Your task to perform on an android device: set the stopwatch Image 0: 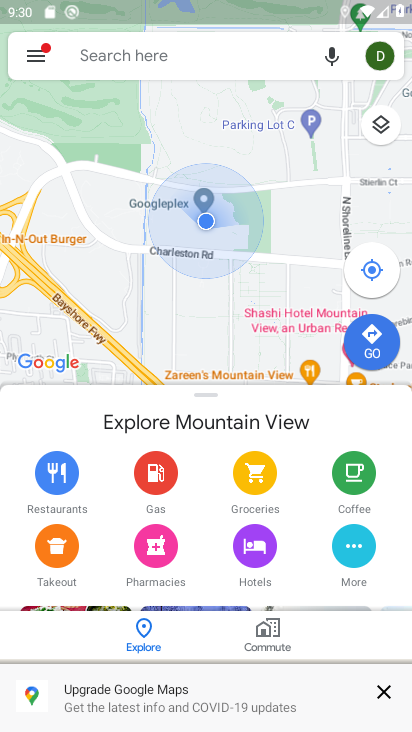
Step 0: press home button
Your task to perform on an android device: set the stopwatch Image 1: 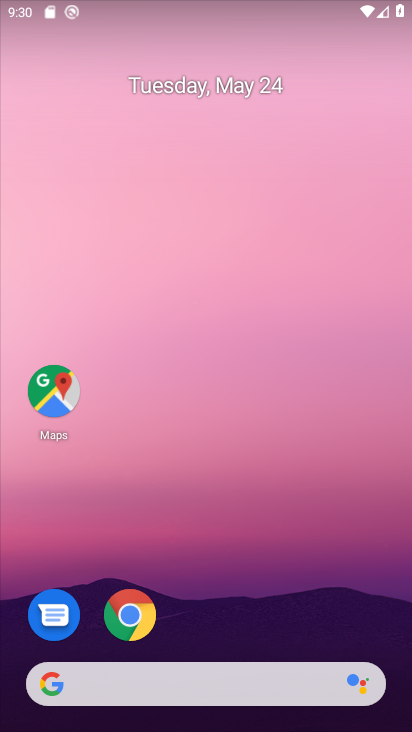
Step 1: drag from (370, 624) to (368, 260)
Your task to perform on an android device: set the stopwatch Image 2: 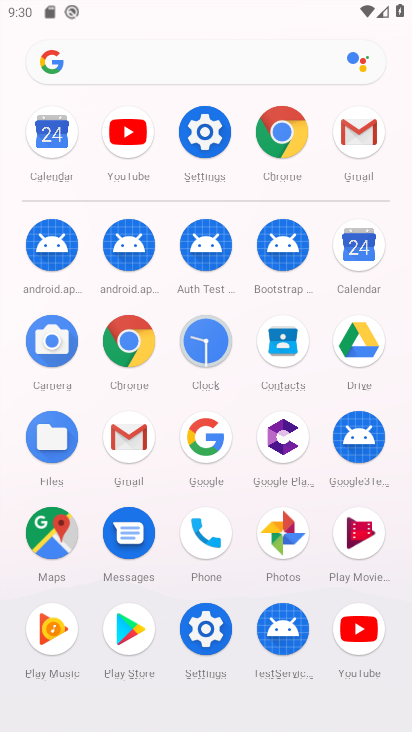
Step 2: click (200, 345)
Your task to perform on an android device: set the stopwatch Image 3: 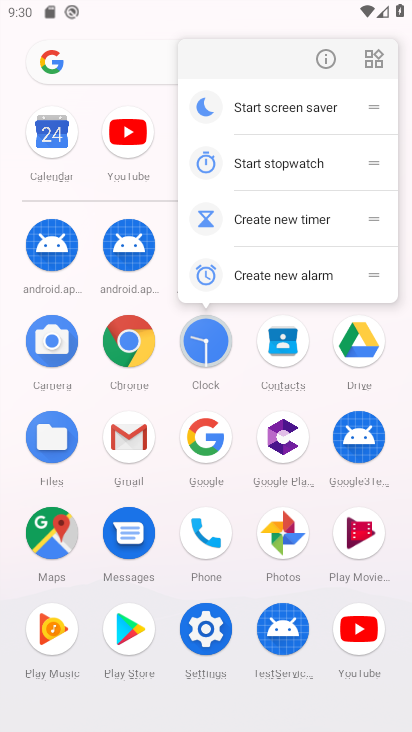
Step 3: click (200, 345)
Your task to perform on an android device: set the stopwatch Image 4: 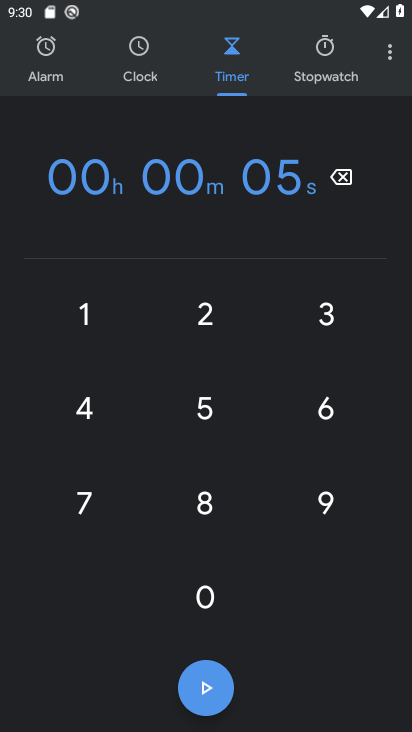
Step 4: click (325, 63)
Your task to perform on an android device: set the stopwatch Image 5: 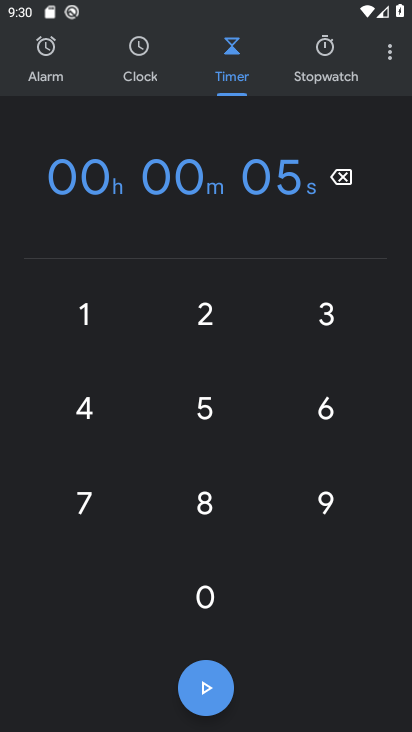
Step 5: click (210, 420)
Your task to perform on an android device: set the stopwatch Image 6: 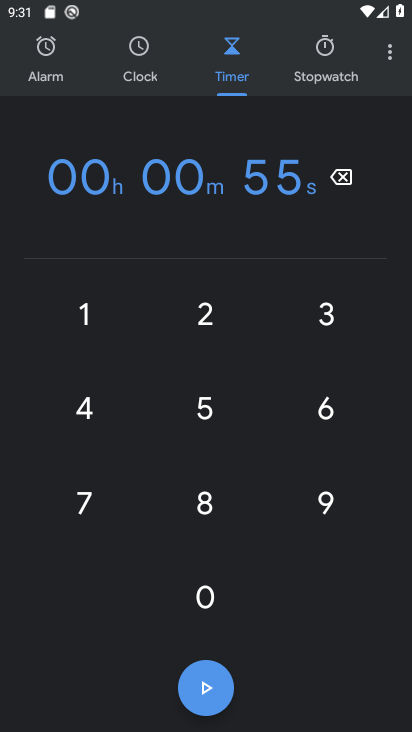
Step 6: task complete